Your task to perform on an android device: toggle javascript in the chrome app Image 0: 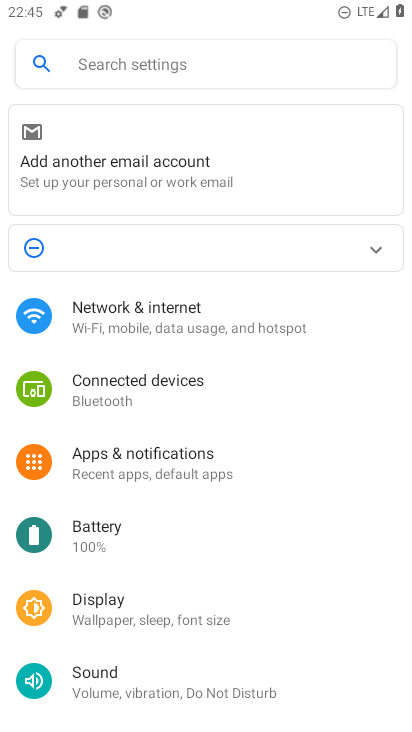
Step 0: press home button
Your task to perform on an android device: toggle javascript in the chrome app Image 1: 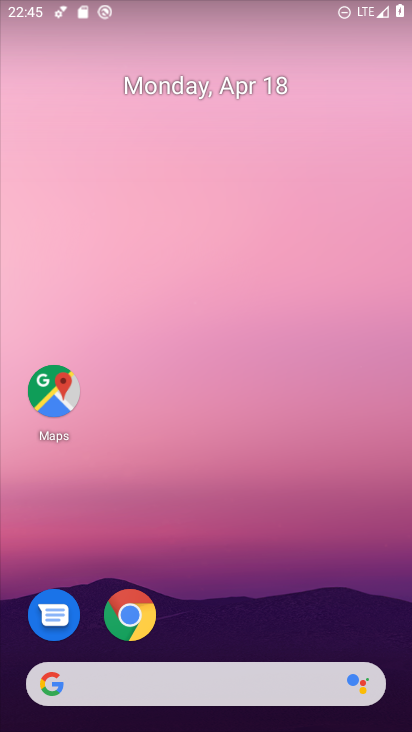
Step 1: click (135, 633)
Your task to perform on an android device: toggle javascript in the chrome app Image 2: 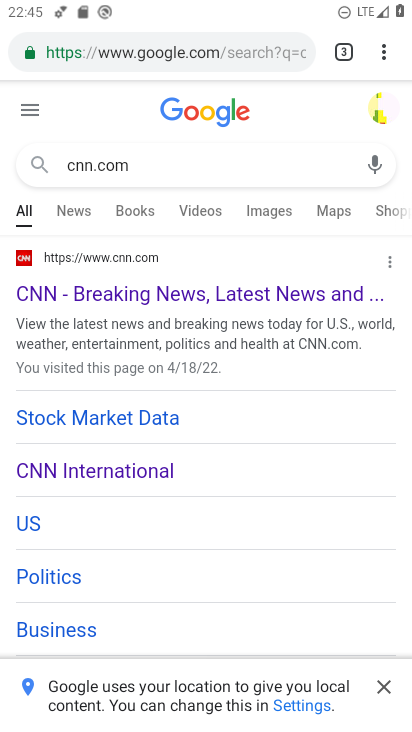
Step 2: click (386, 54)
Your task to perform on an android device: toggle javascript in the chrome app Image 3: 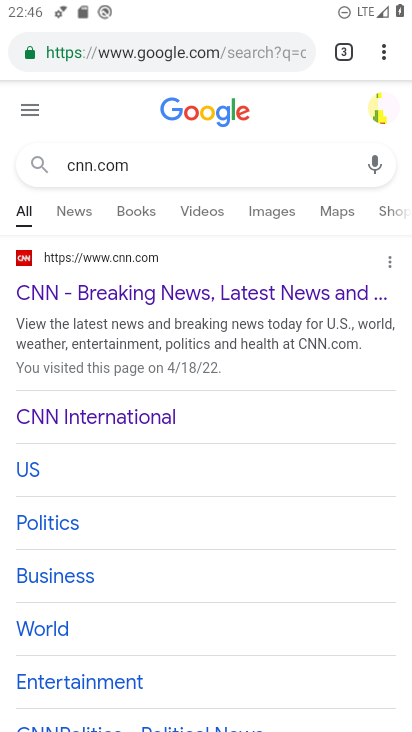
Step 3: click (381, 48)
Your task to perform on an android device: toggle javascript in the chrome app Image 4: 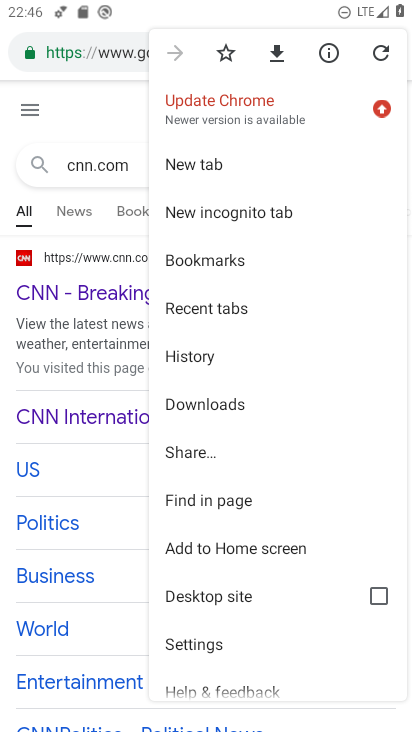
Step 4: click (201, 645)
Your task to perform on an android device: toggle javascript in the chrome app Image 5: 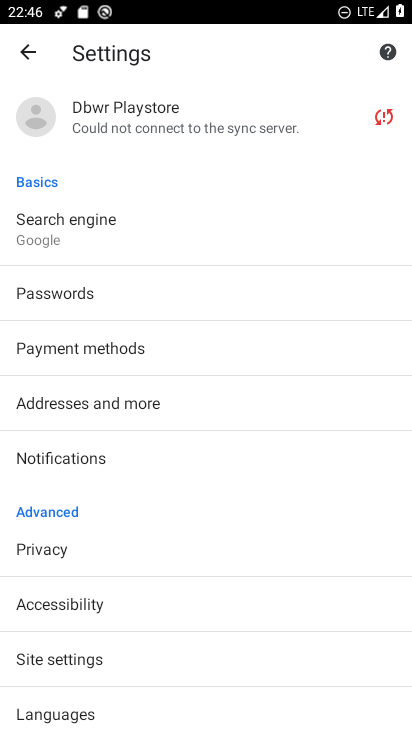
Step 5: click (80, 661)
Your task to perform on an android device: toggle javascript in the chrome app Image 6: 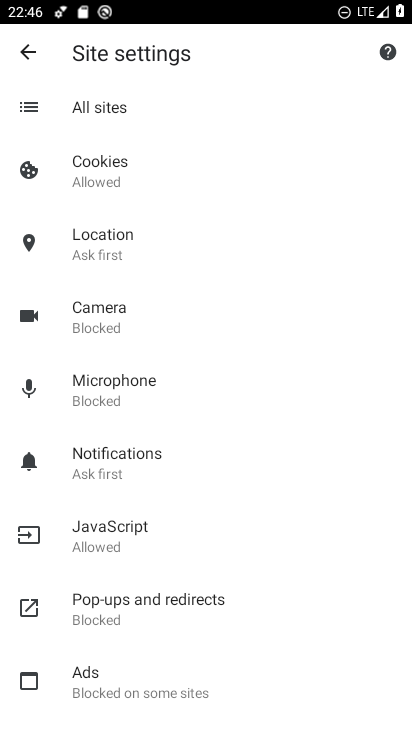
Step 6: click (110, 543)
Your task to perform on an android device: toggle javascript in the chrome app Image 7: 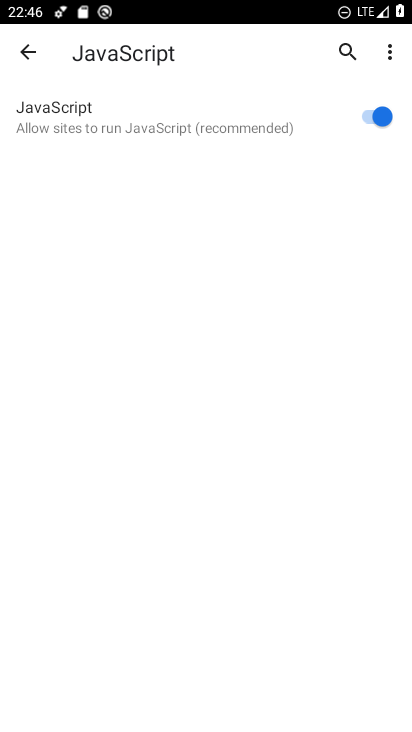
Step 7: click (375, 119)
Your task to perform on an android device: toggle javascript in the chrome app Image 8: 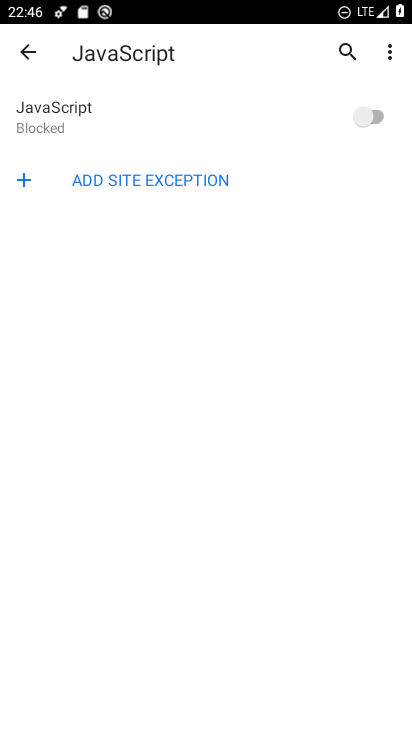
Step 8: task complete